Your task to perform on an android device: open sync settings in chrome Image 0: 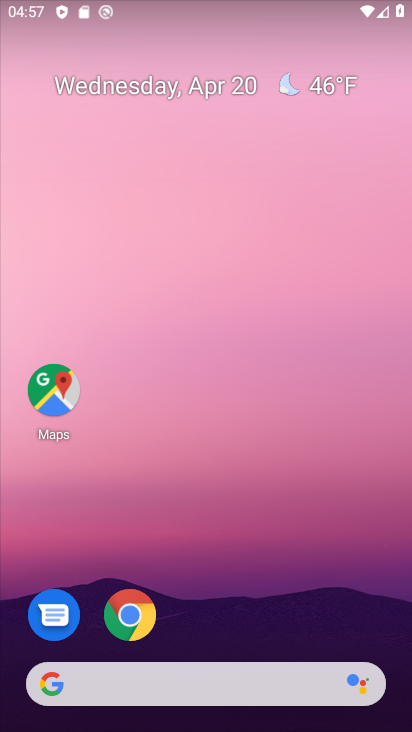
Step 0: click (146, 600)
Your task to perform on an android device: open sync settings in chrome Image 1: 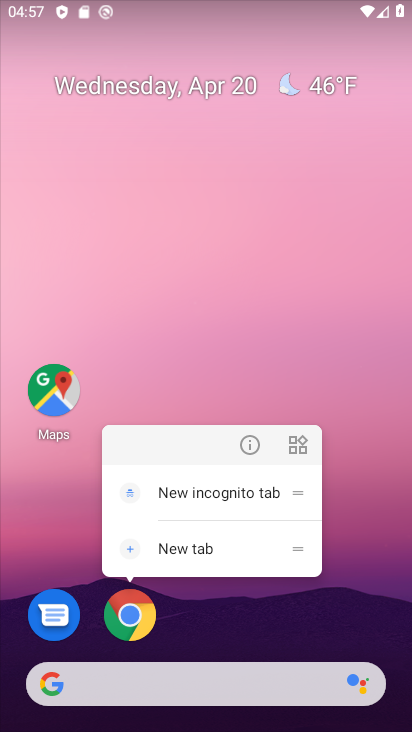
Step 1: click (147, 608)
Your task to perform on an android device: open sync settings in chrome Image 2: 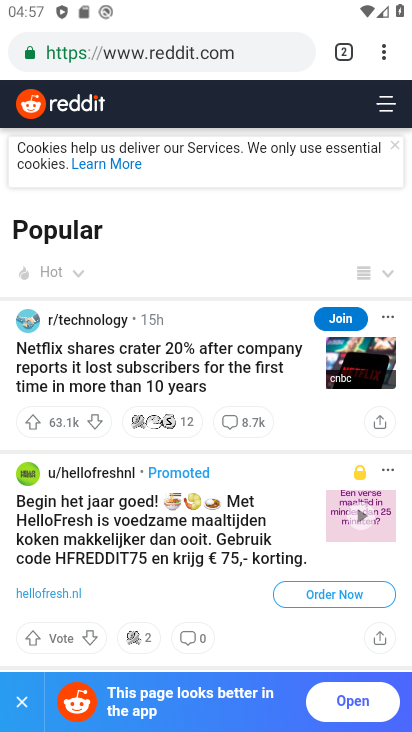
Step 2: drag from (380, 45) to (209, 650)
Your task to perform on an android device: open sync settings in chrome Image 3: 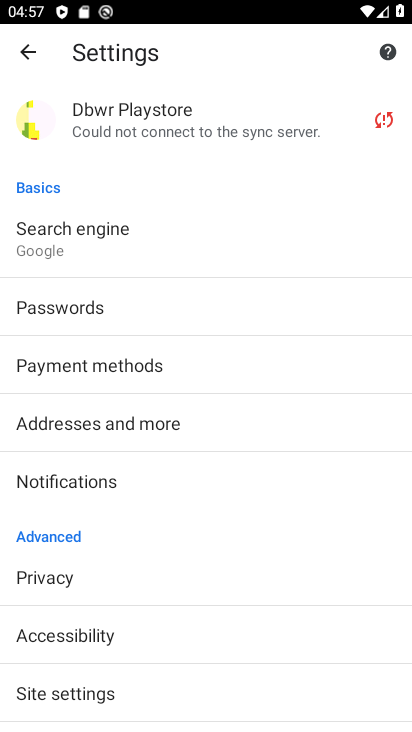
Step 3: click (125, 121)
Your task to perform on an android device: open sync settings in chrome Image 4: 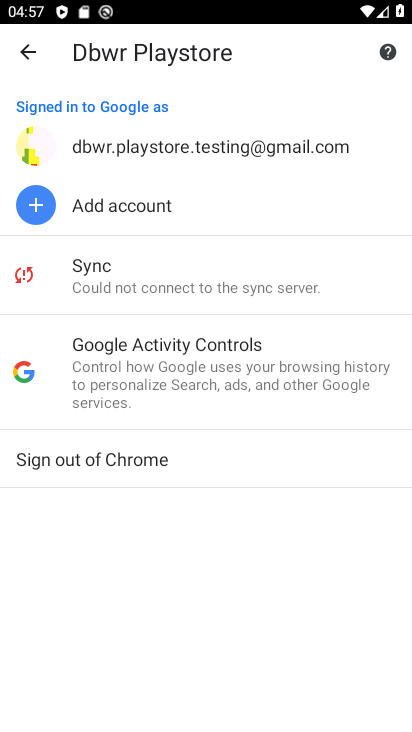
Step 4: task complete